Your task to perform on an android device: turn on priority inbox in the gmail app Image 0: 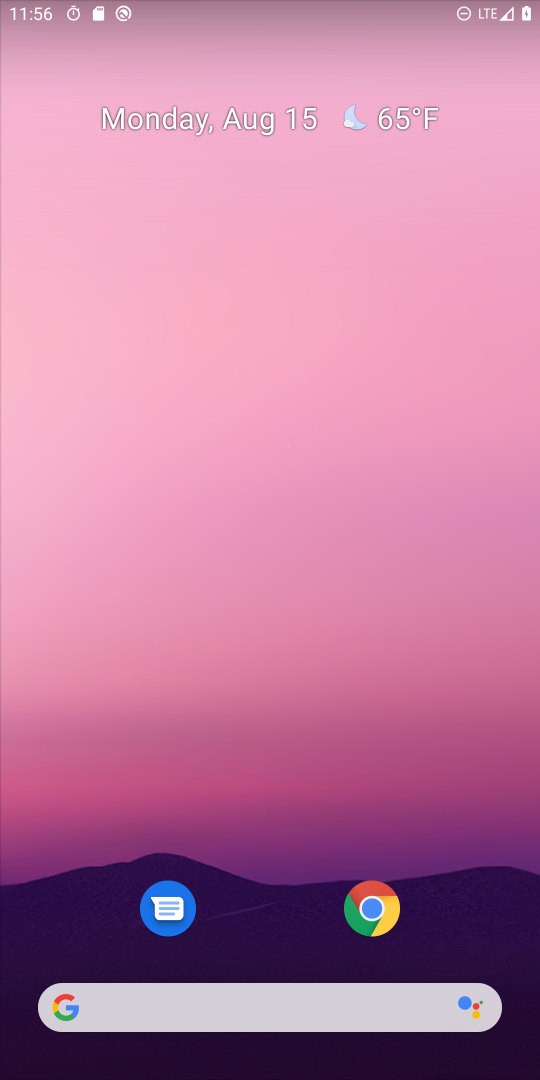
Step 0: drag from (247, 962) to (257, 825)
Your task to perform on an android device: turn on priority inbox in the gmail app Image 1: 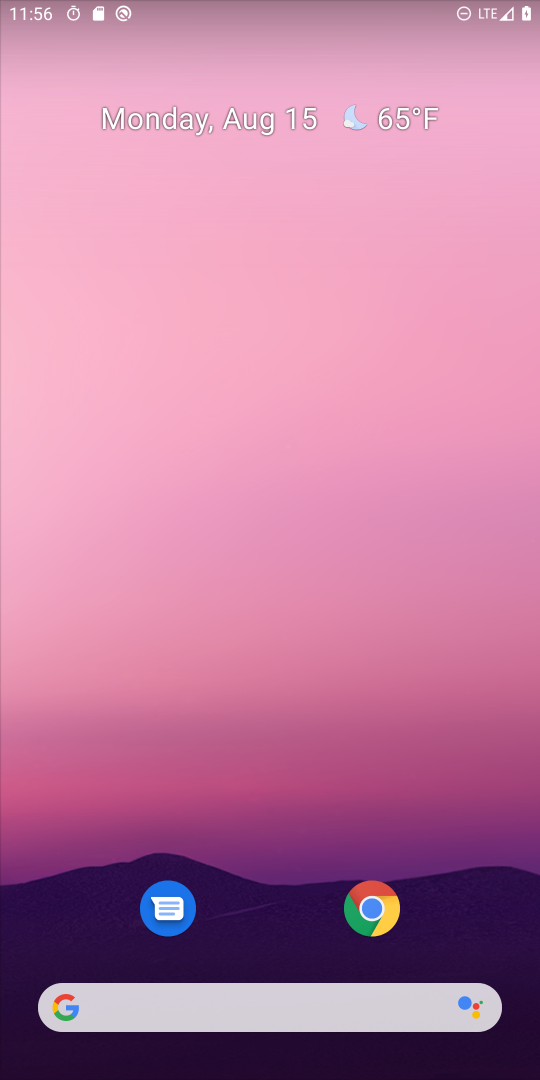
Step 1: drag from (258, 916) to (283, 39)
Your task to perform on an android device: turn on priority inbox in the gmail app Image 2: 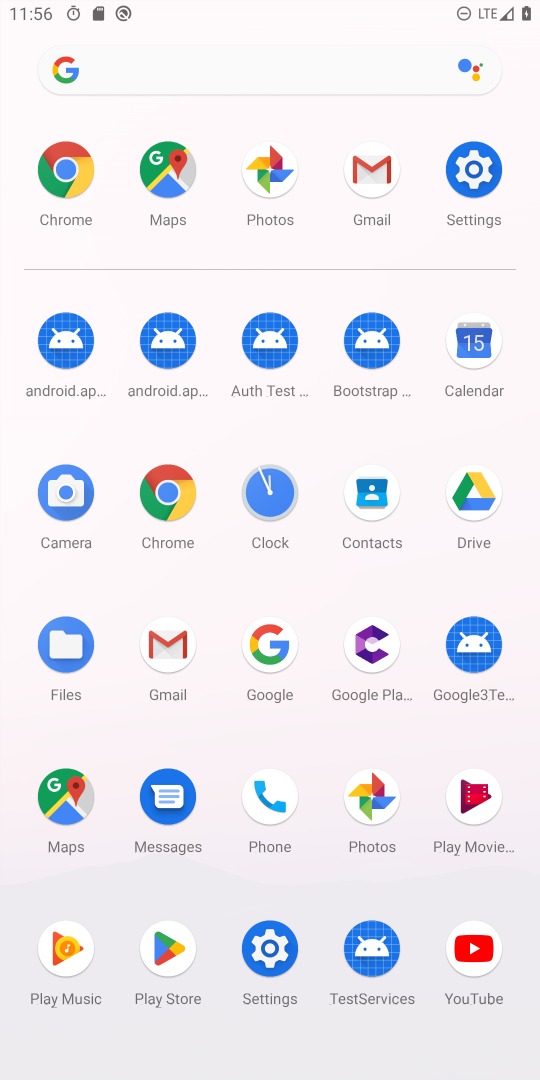
Step 2: click (381, 167)
Your task to perform on an android device: turn on priority inbox in the gmail app Image 3: 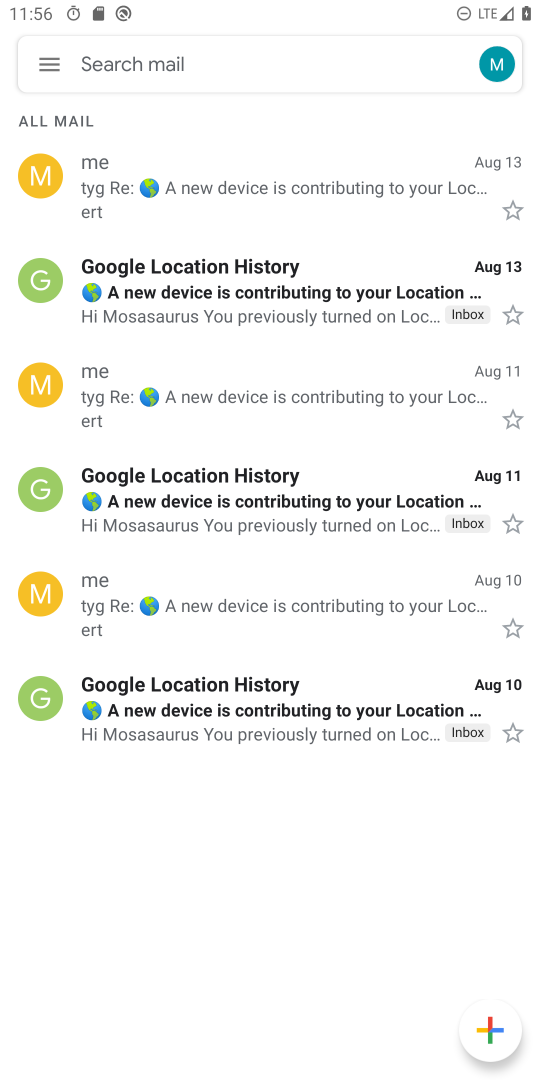
Step 3: click (77, 112)
Your task to perform on an android device: turn on priority inbox in the gmail app Image 4: 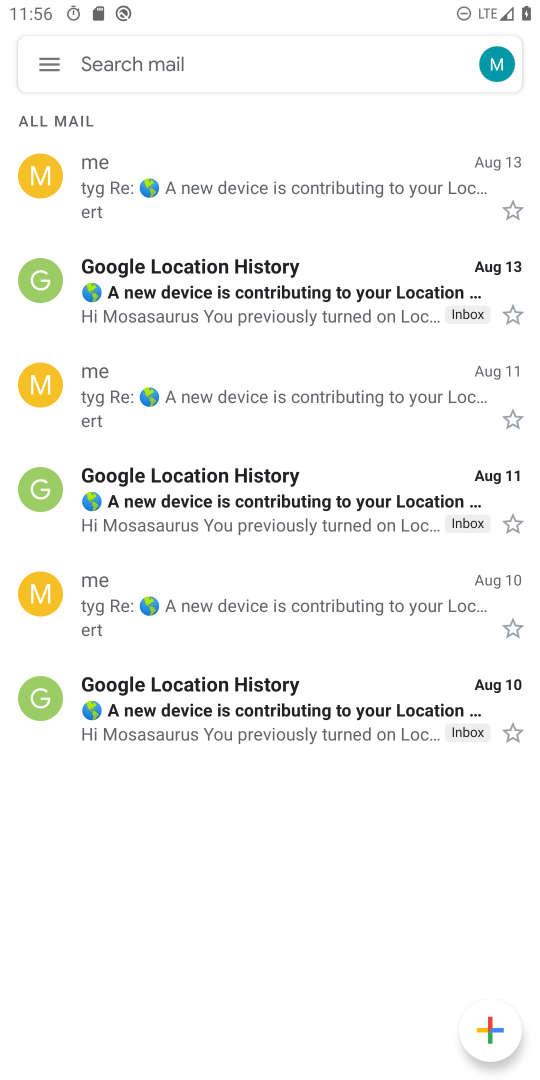
Step 4: click (42, 55)
Your task to perform on an android device: turn on priority inbox in the gmail app Image 5: 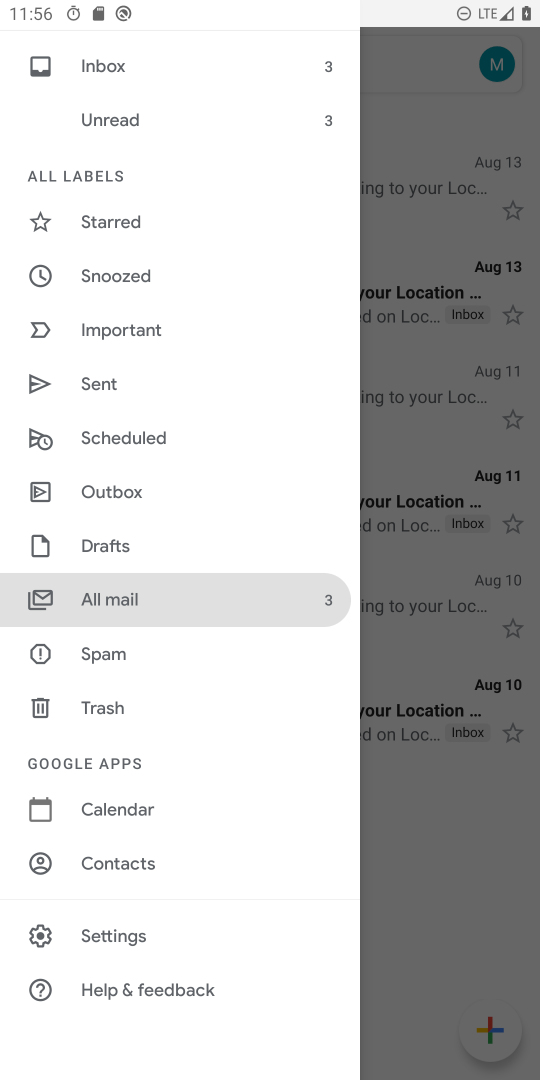
Step 5: click (109, 935)
Your task to perform on an android device: turn on priority inbox in the gmail app Image 6: 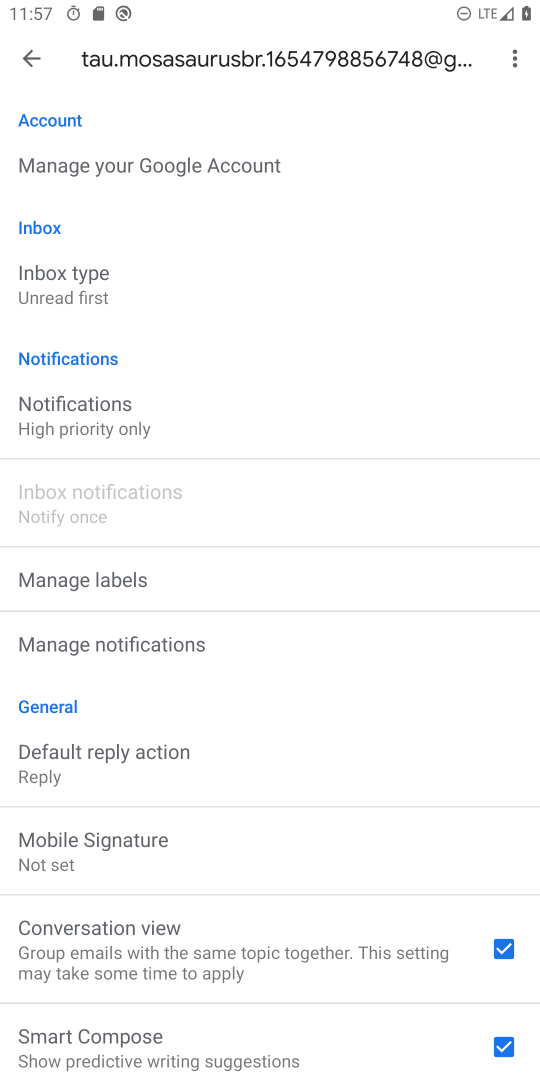
Step 6: click (169, 279)
Your task to perform on an android device: turn on priority inbox in the gmail app Image 7: 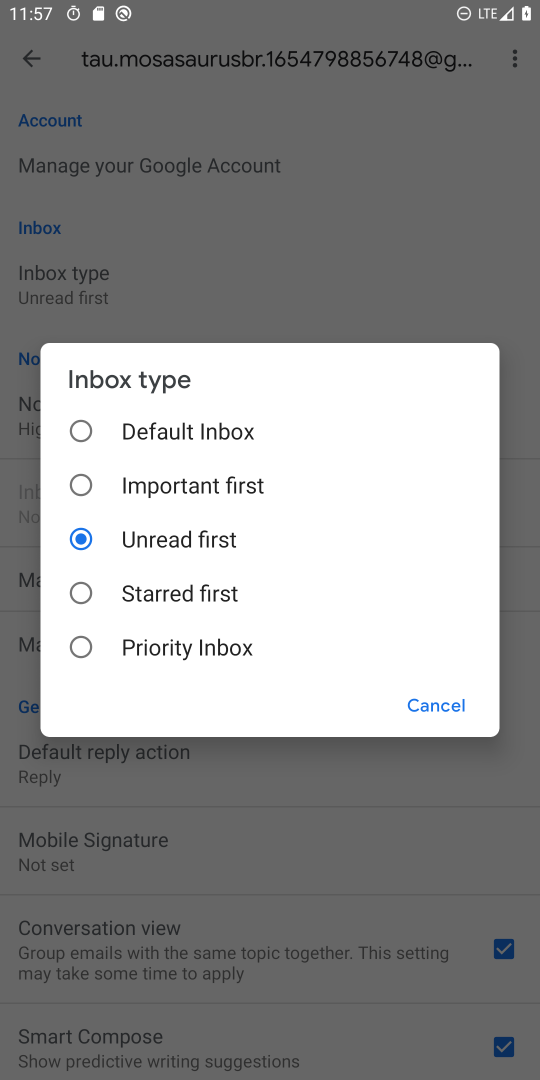
Step 7: click (83, 651)
Your task to perform on an android device: turn on priority inbox in the gmail app Image 8: 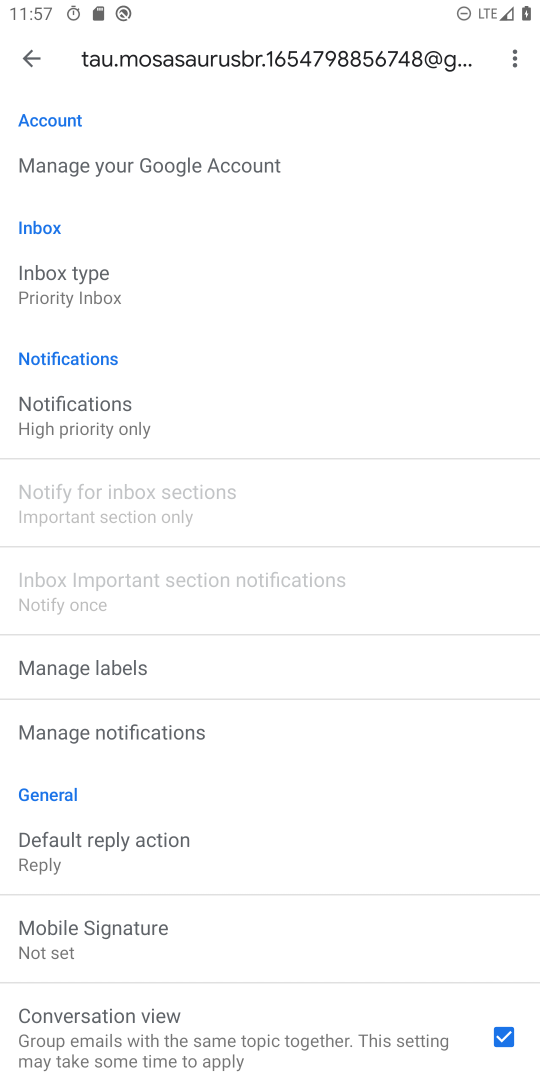
Step 8: task complete